Your task to perform on an android device: turn on priority inbox in the gmail app Image 0: 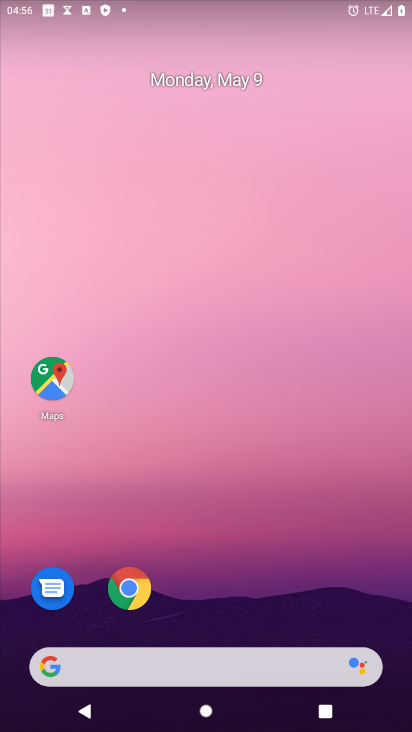
Step 0: drag from (277, 352) to (270, 102)
Your task to perform on an android device: turn on priority inbox in the gmail app Image 1: 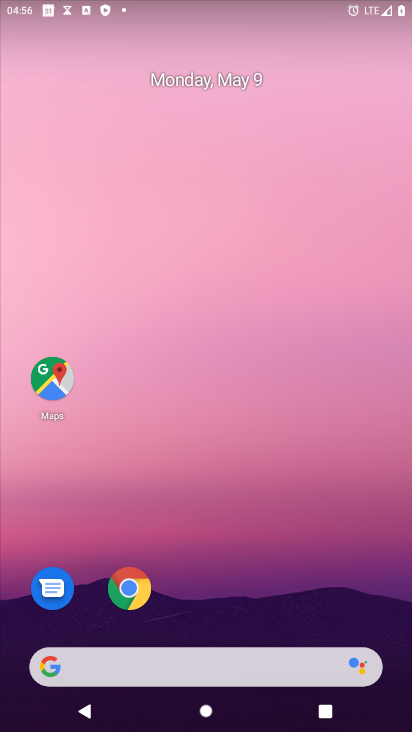
Step 1: drag from (279, 554) to (245, 109)
Your task to perform on an android device: turn on priority inbox in the gmail app Image 2: 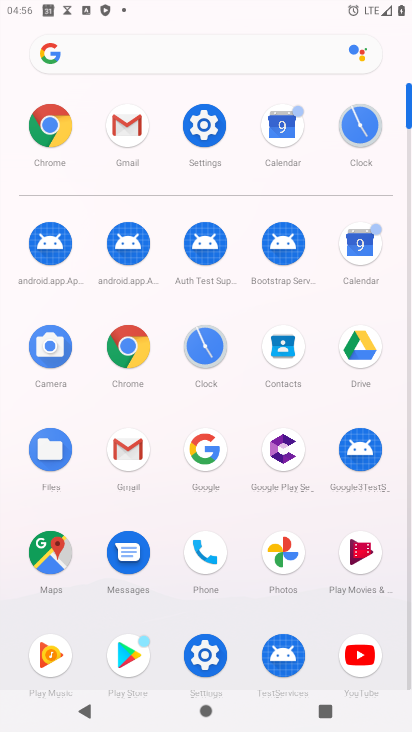
Step 2: click (134, 450)
Your task to perform on an android device: turn on priority inbox in the gmail app Image 3: 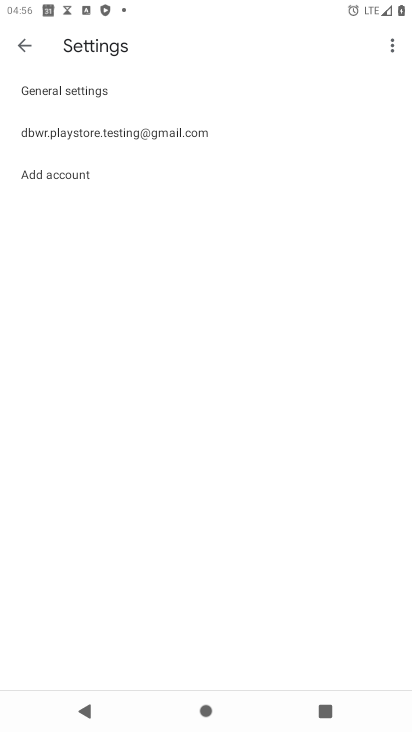
Step 3: click (115, 144)
Your task to perform on an android device: turn on priority inbox in the gmail app Image 4: 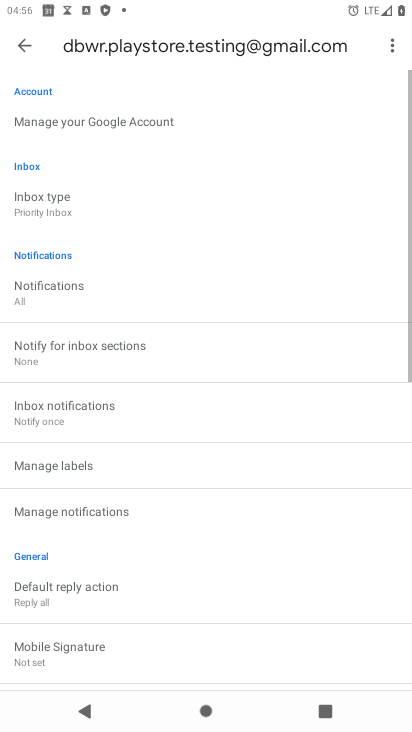
Step 4: click (78, 193)
Your task to perform on an android device: turn on priority inbox in the gmail app Image 5: 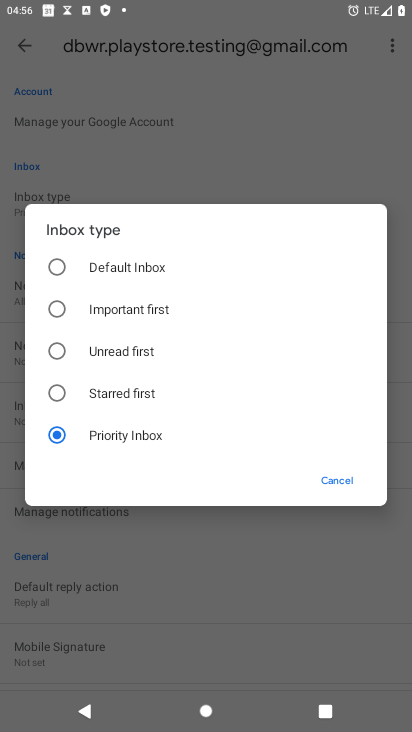
Step 5: task complete